Your task to perform on an android device: What's the weather going to be tomorrow? Image 0: 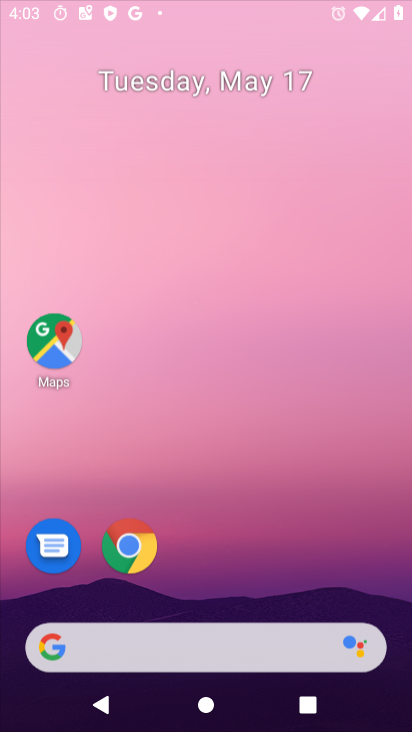
Step 0: press home button
Your task to perform on an android device: What's the weather going to be tomorrow? Image 1: 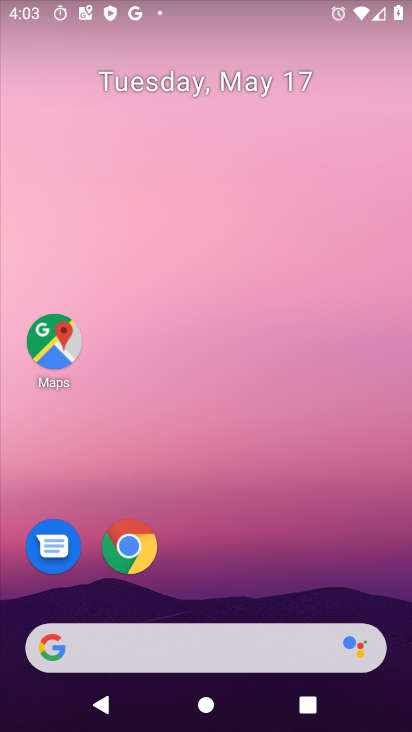
Step 1: drag from (396, 380) to (362, 170)
Your task to perform on an android device: What's the weather going to be tomorrow? Image 2: 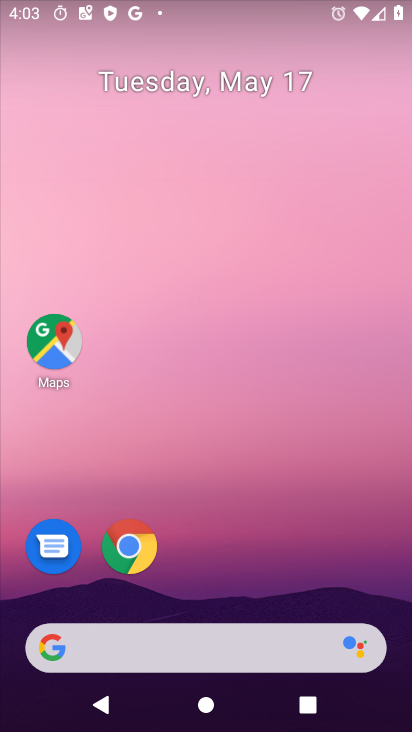
Step 2: drag from (407, 632) to (389, 266)
Your task to perform on an android device: What's the weather going to be tomorrow? Image 3: 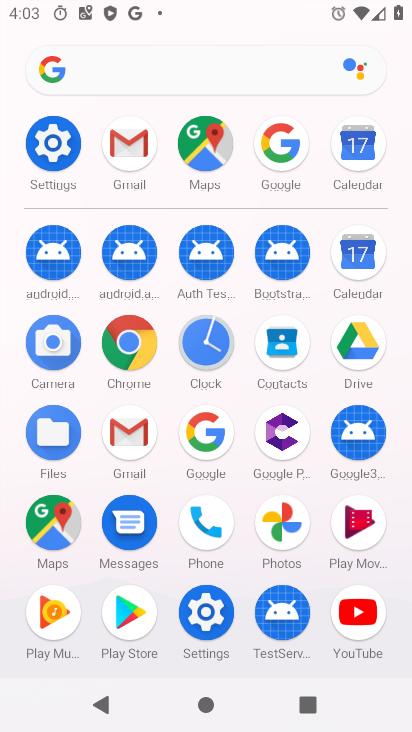
Step 3: click (221, 441)
Your task to perform on an android device: What's the weather going to be tomorrow? Image 4: 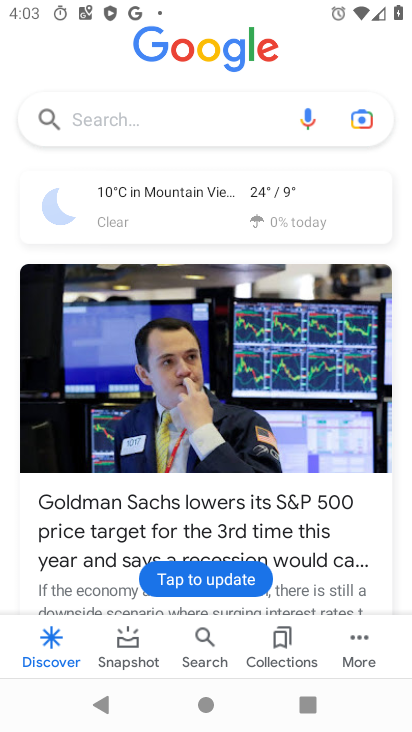
Step 4: click (262, 187)
Your task to perform on an android device: What's the weather going to be tomorrow? Image 5: 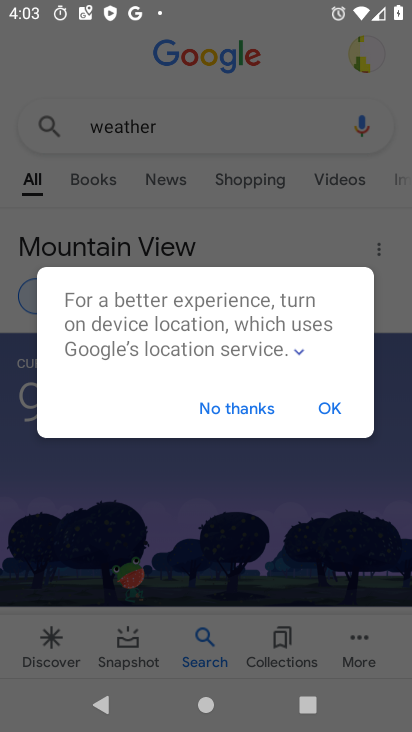
Step 5: click (321, 401)
Your task to perform on an android device: What's the weather going to be tomorrow? Image 6: 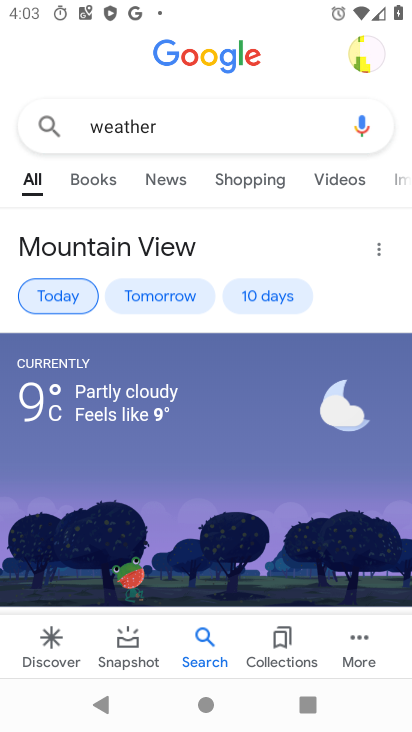
Step 6: click (128, 121)
Your task to perform on an android device: What's the weather going to be tomorrow? Image 7: 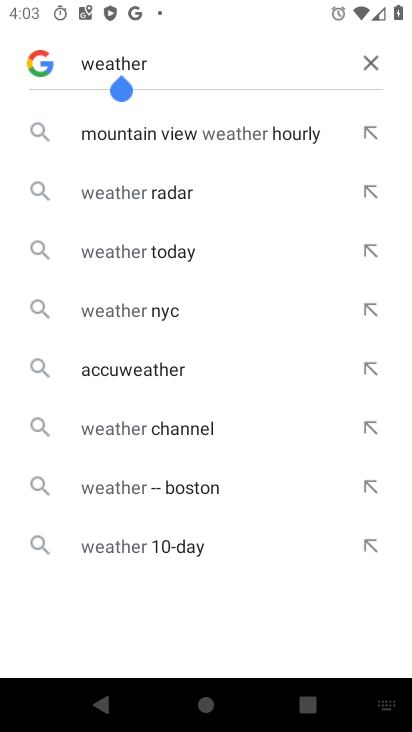
Step 7: click (196, 62)
Your task to perform on an android device: What's the weather going to be tomorrow? Image 8: 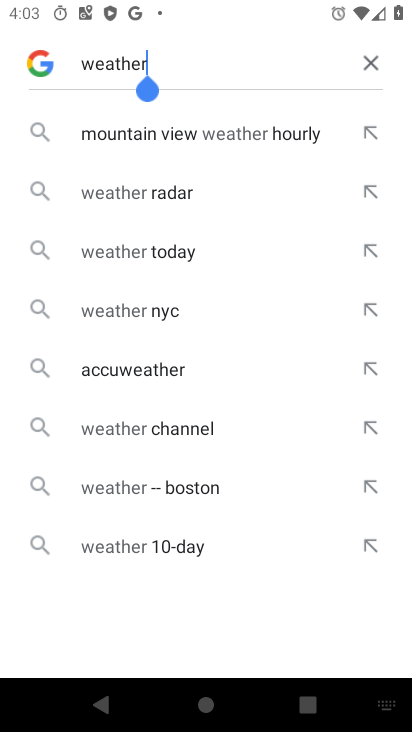
Step 8: press back button
Your task to perform on an android device: What's the weather going to be tomorrow? Image 9: 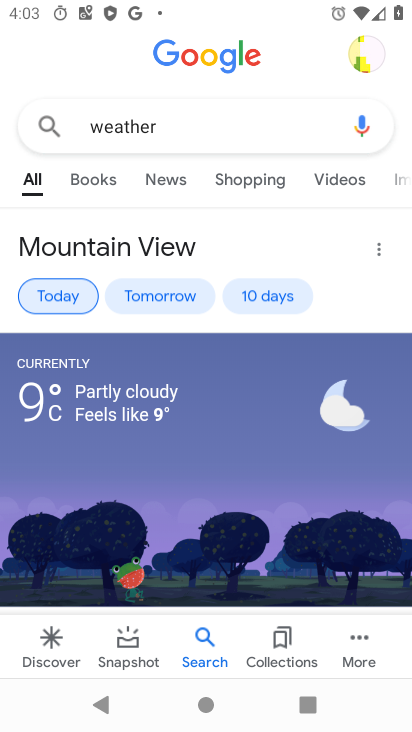
Step 9: click (162, 298)
Your task to perform on an android device: What's the weather going to be tomorrow? Image 10: 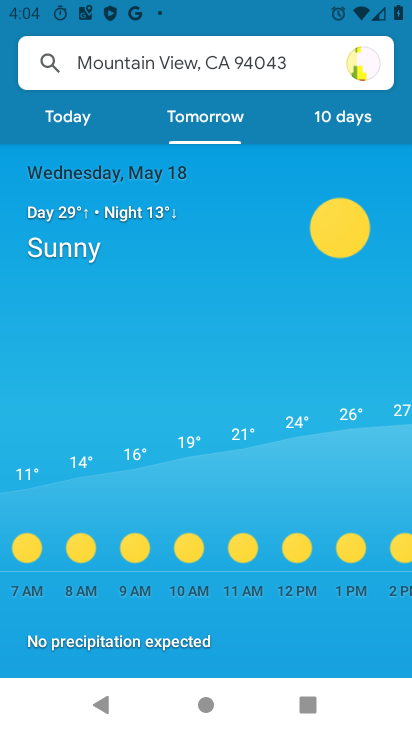
Step 10: task complete